Your task to perform on an android device: open app "Venmo" Image 0: 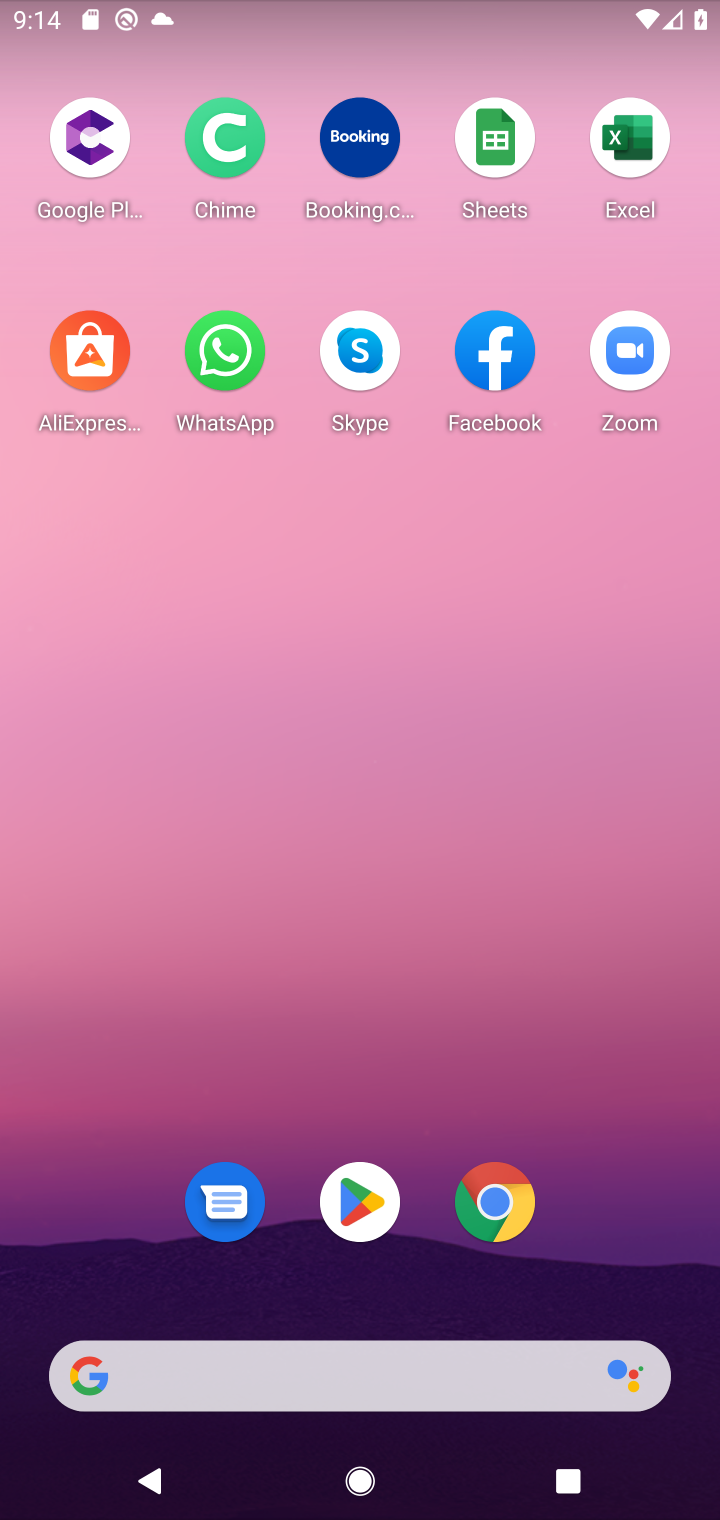
Step 0: click (341, 1199)
Your task to perform on an android device: open app "Venmo" Image 1: 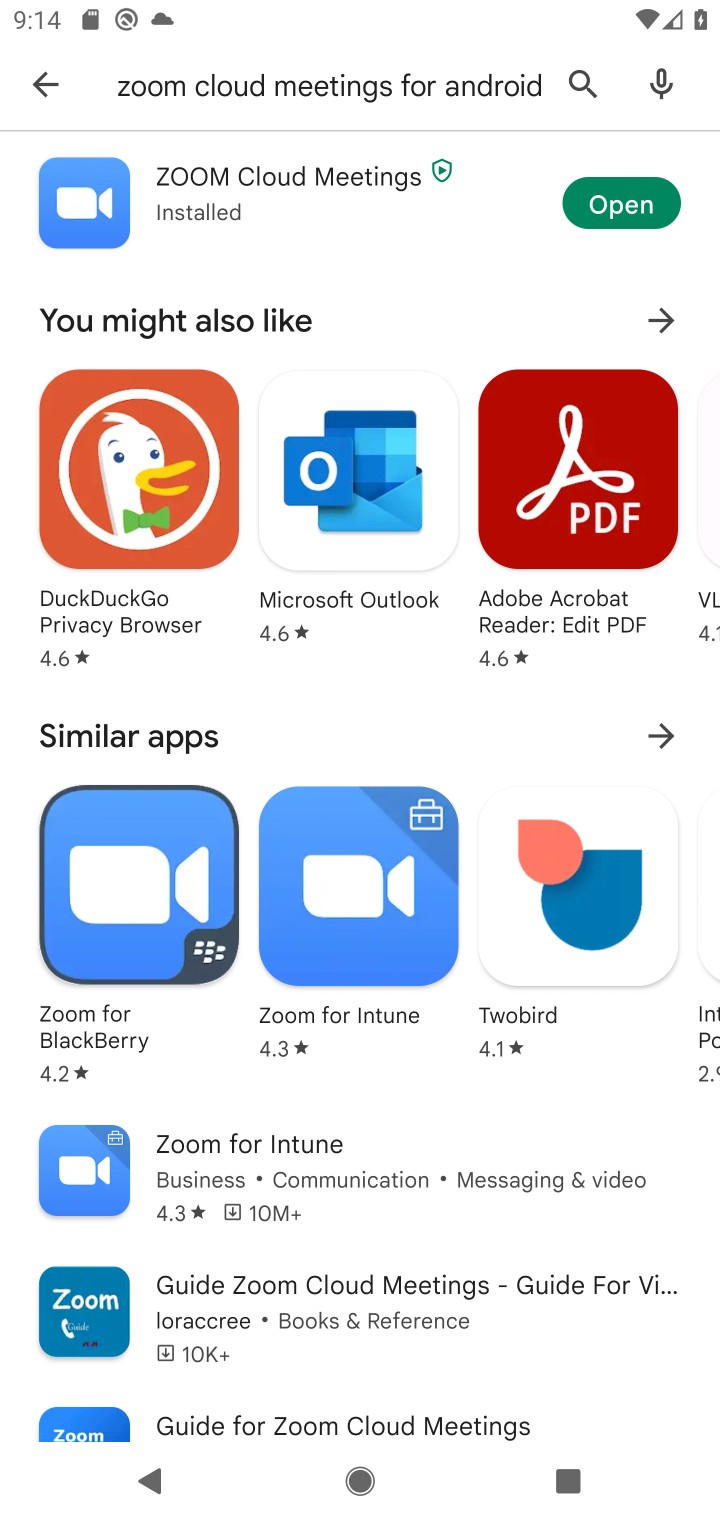
Step 1: click (40, 69)
Your task to perform on an android device: open app "Venmo" Image 2: 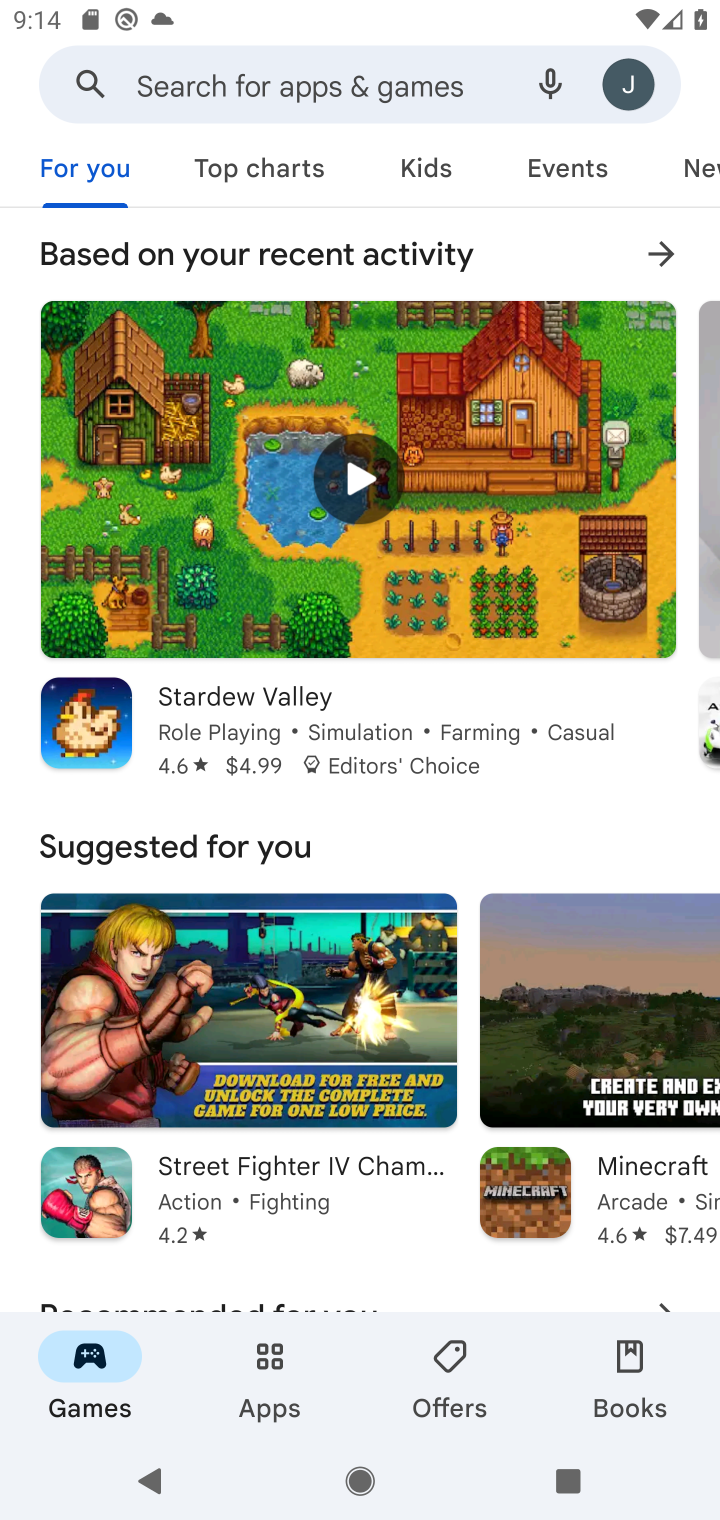
Step 2: click (442, 76)
Your task to perform on an android device: open app "Venmo" Image 3: 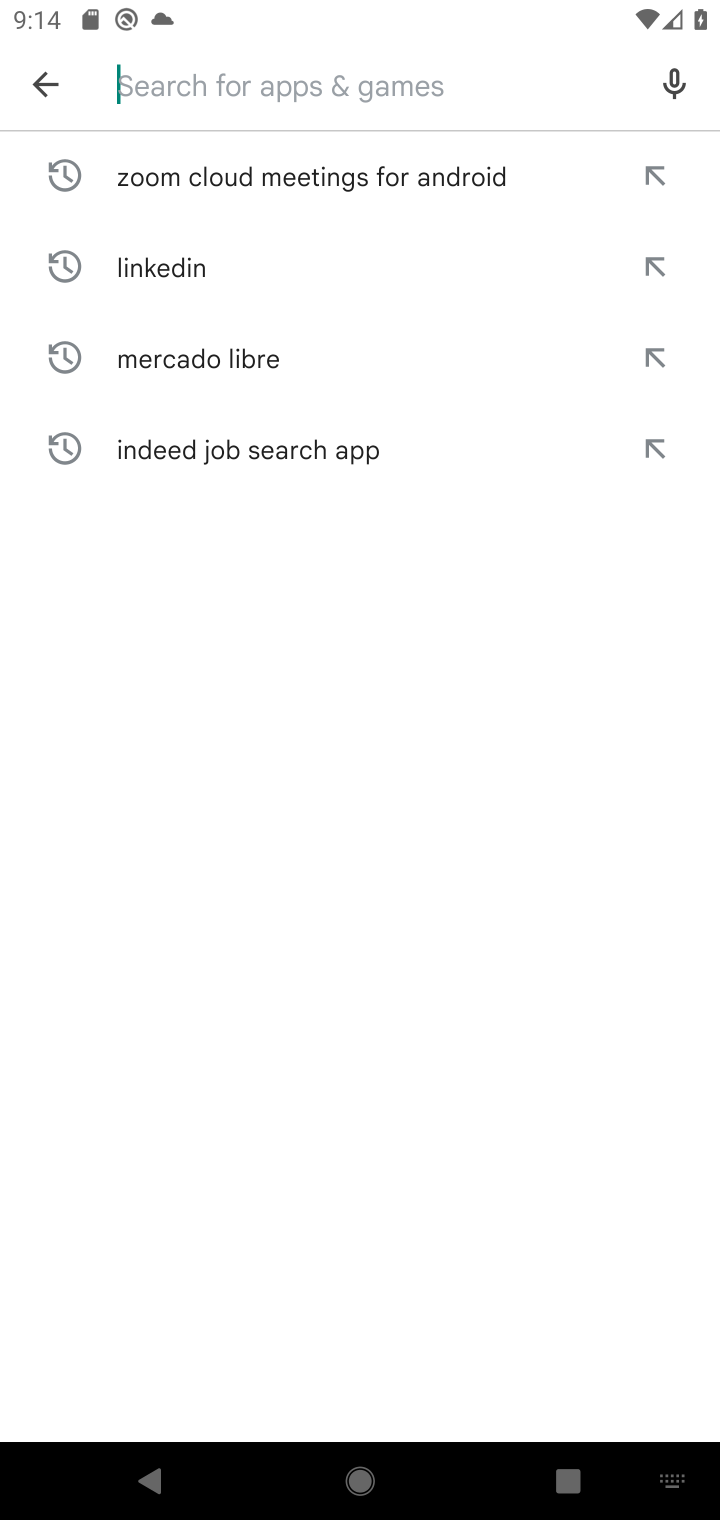
Step 3: type "venmo"
Your task to perform on an android device: open app "Venmo" Image 4: 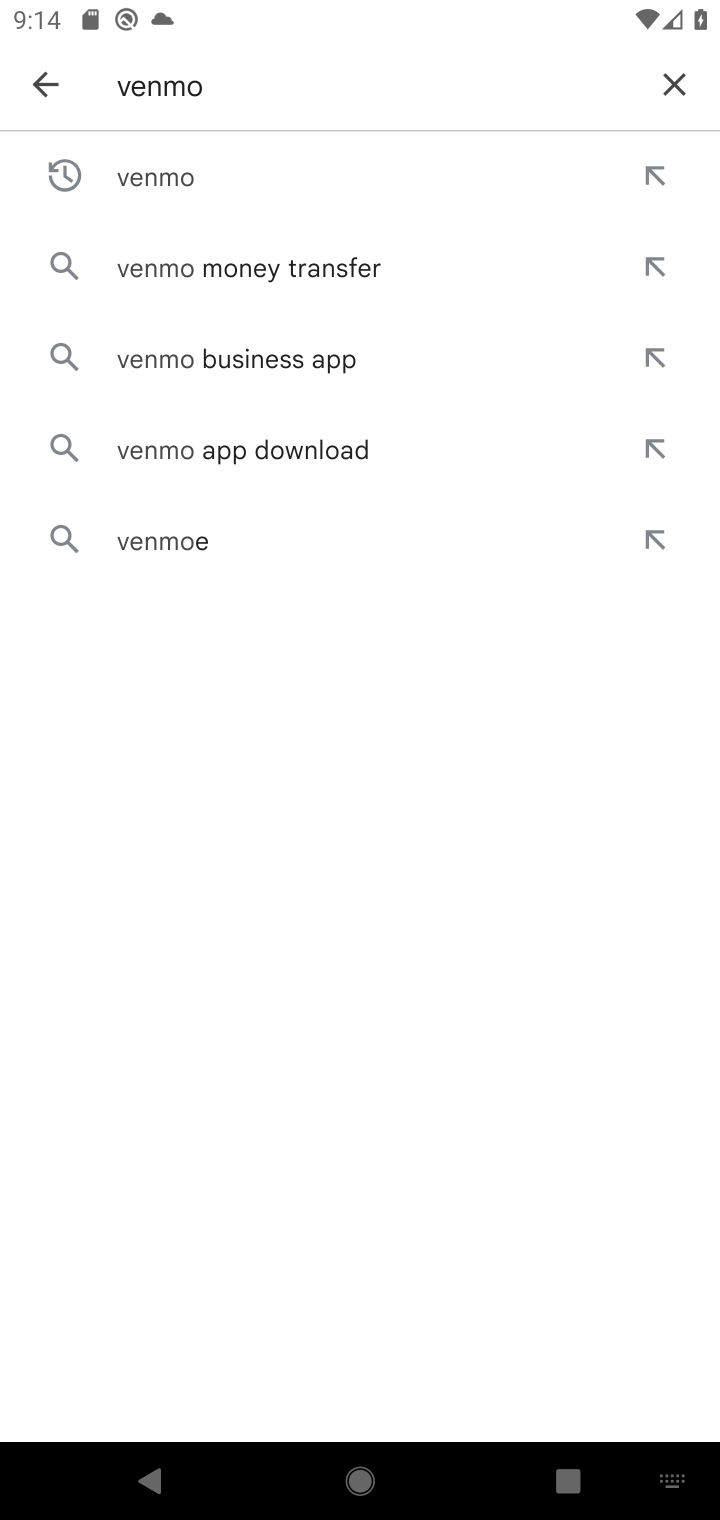
Step 4: click (123, 160)
Your task to perform on an android device: open app "Venmo" Image 5: 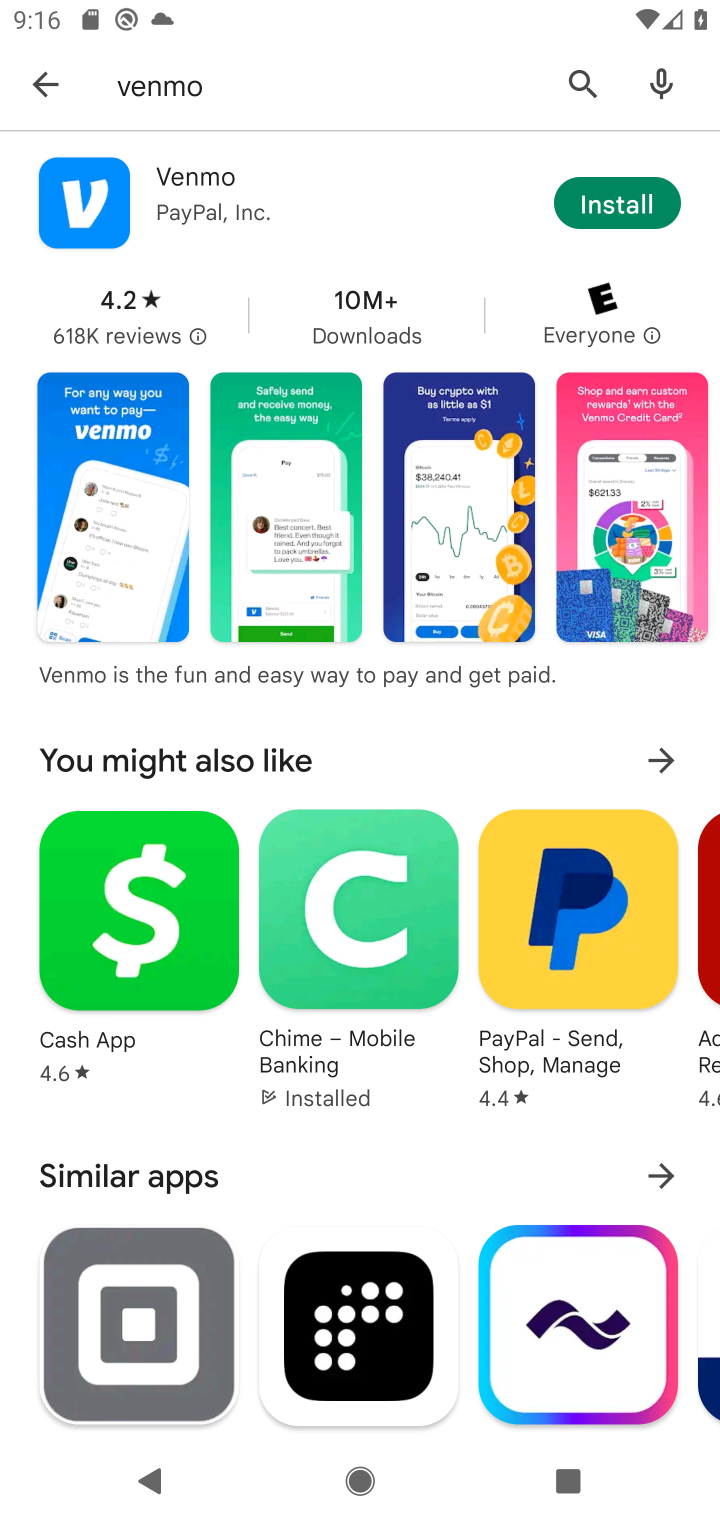
Step 5: task complete